Your task to perform on an android device: turn notification dots on Image 0: 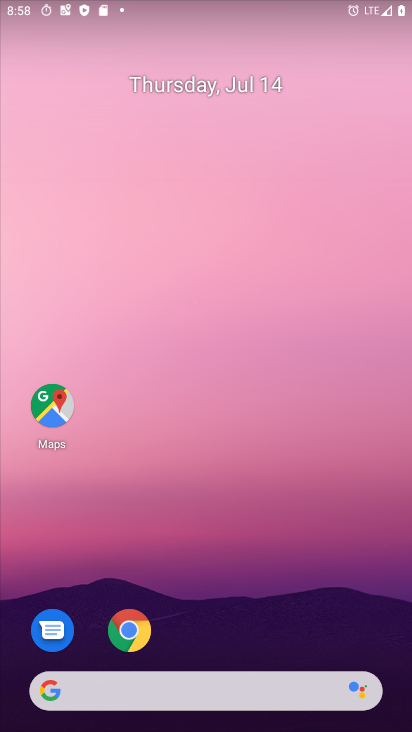
Step 0: drag from (222, 711) to (207, 237)
Your task to perform on an android device: turn notification dots on Image 1: 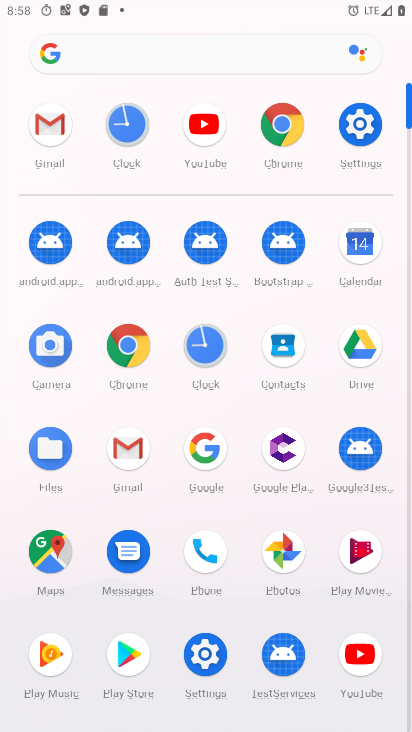
Step 1: click (353, 130)
Your task to perform on an android device: turn notification dots on Image 2: 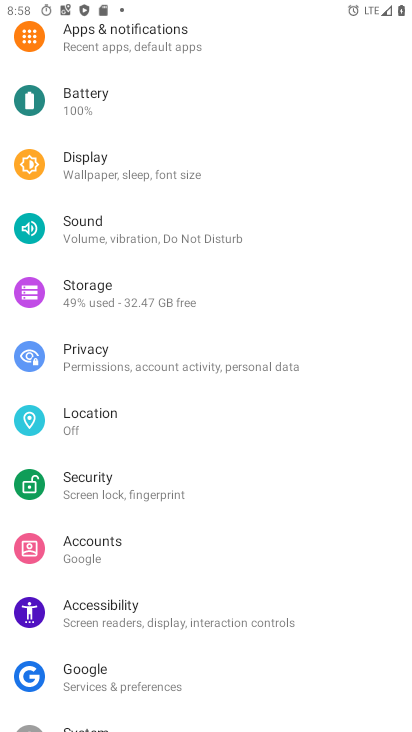
Step 2: click (114, 51)
Your task to perform on an android device: turn notification dots on Image 3: 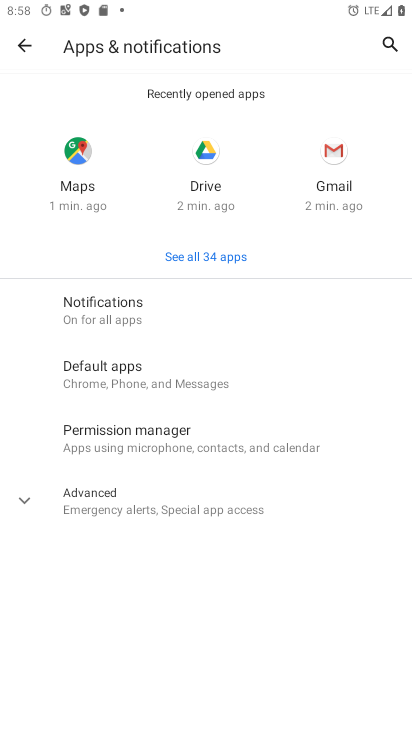
Step 3: click (98, 301)
Your task to perform on an android device: turn notification dots on Image 4: 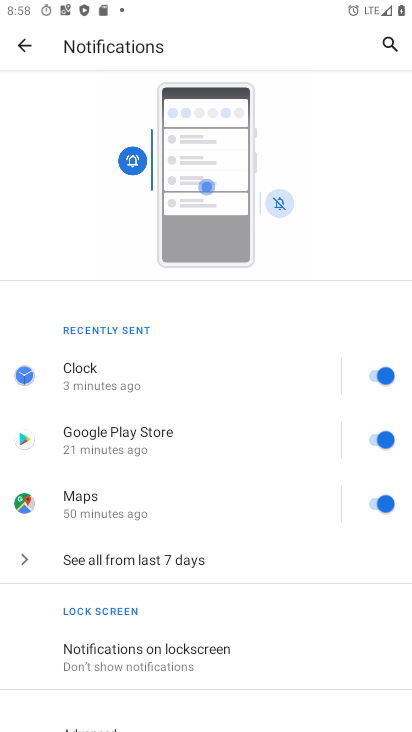
Step 4: drag from (139, 711) to (136, 464)
Your task to perform on an android device: turn notification dots on Image 5: 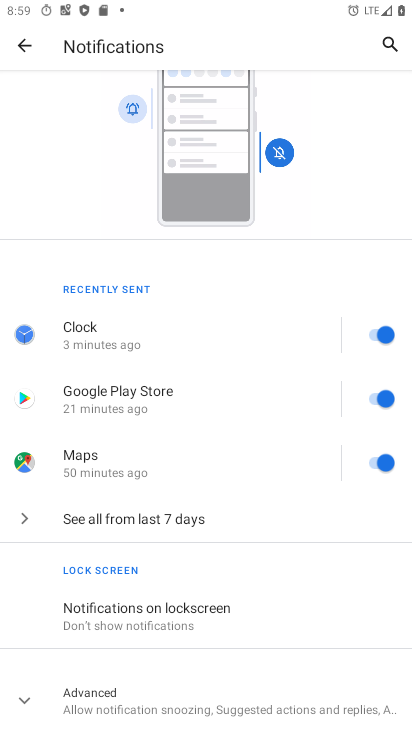
Step 5: click (82, 701)
Your task to perform on an android device: turn notification dots on Image 6: 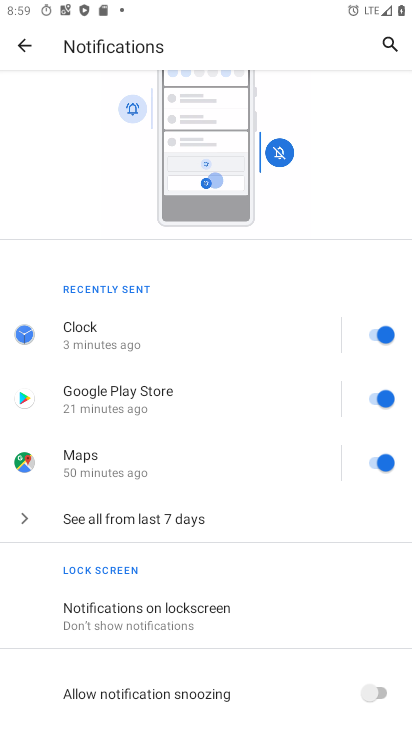
Step 6: drag from (270, 703) to (268, 495)
Your task to perform on an android device: turn notification dots on Image 7: 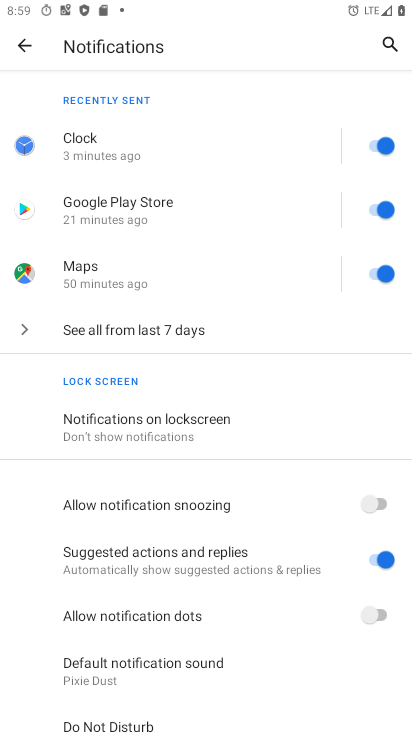
Step 7: click (385, 608)
Your task to perform on an android device: turn notification dots on Image 8: 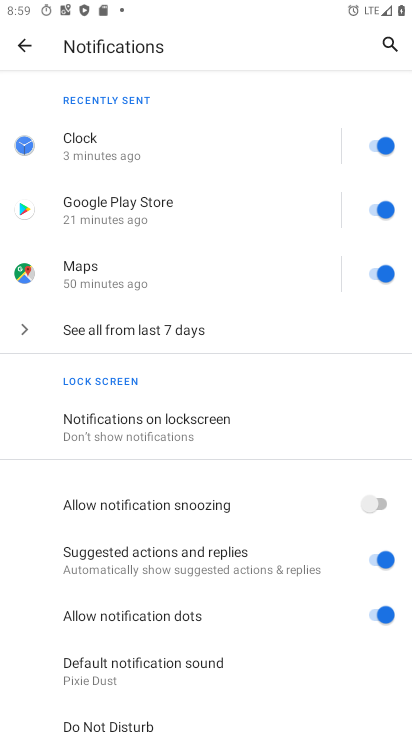
Step 8: task complete